Your task to perform on an android device: turn vacation reply on in the gmail app Image 0: 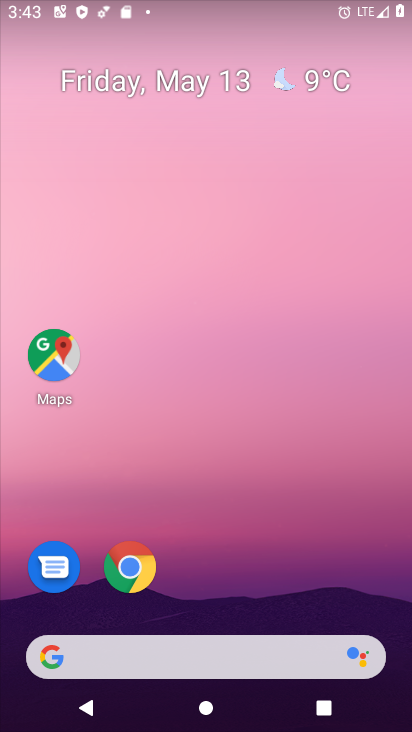
Step 0: drag from (323, 600) to (314, 7)
Your task to perform on an android device: turn vacation reply on in the gmail app Image 1: 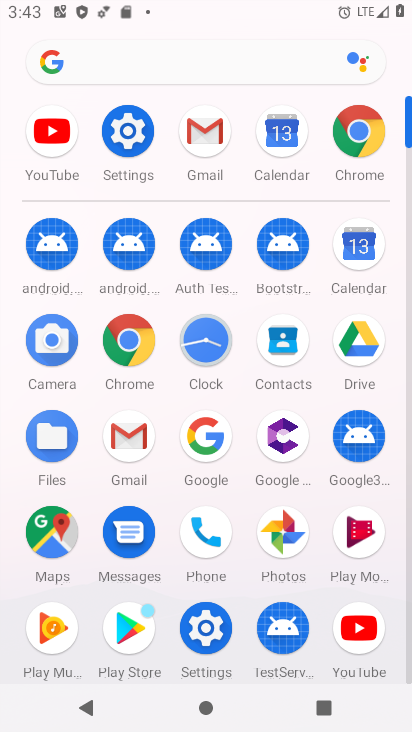
Step 1: click (201, 138)
Your task to perform on an android device: turn vacation reply on in the gmail app Image 2: 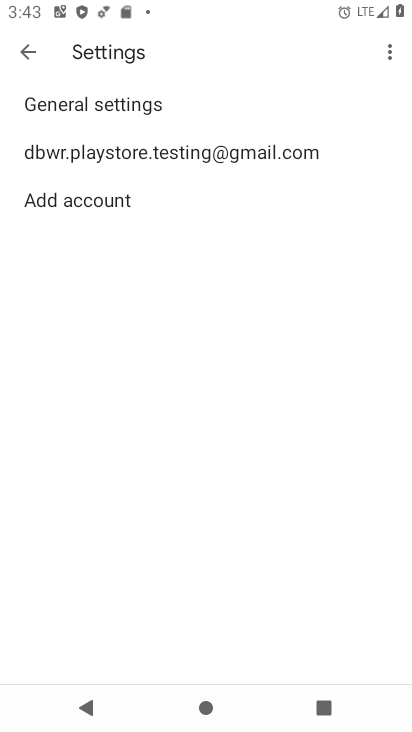
Step 2: click (53, 155)
Your task to perform on an android device: turn vacation reply on in the gmail app Image 3: 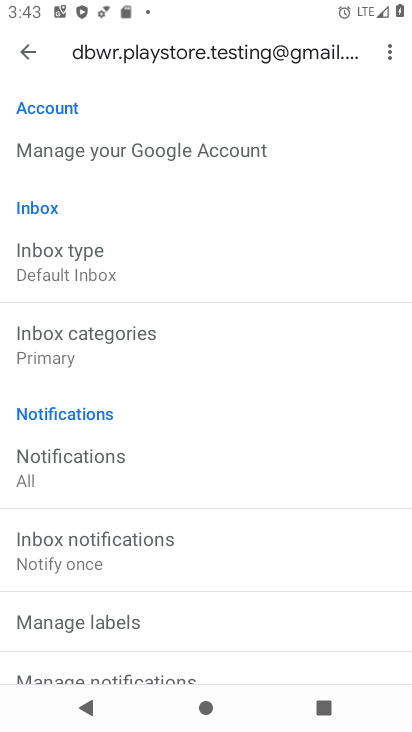
Step 3: drag from (236, 522) to (207, 134)
Your task to perform on an android device: turn vacation reply on in the gmail app Image 4: 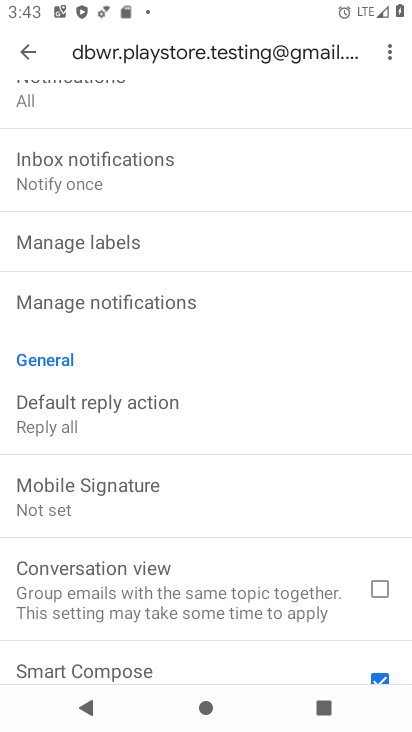
Step 4: drag from (217, 479) to (200, 58)
Your task to perform on an android device: turn vacation reply on in the gmail app Image 5: 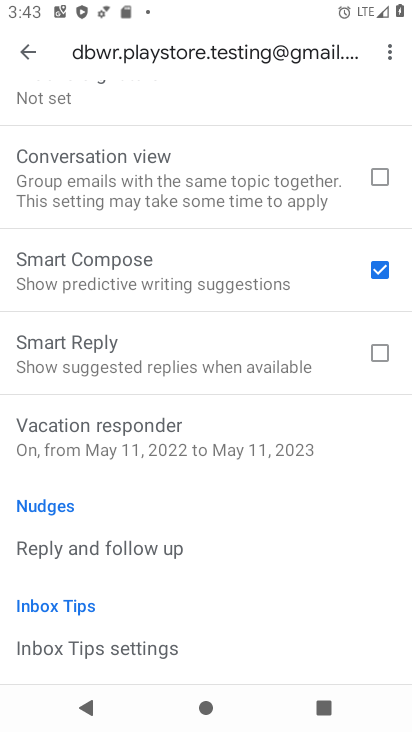
Step 5: click (140, 439)
Your task to perform on an android device: turn vacation reply on in the gmail app Image 6: 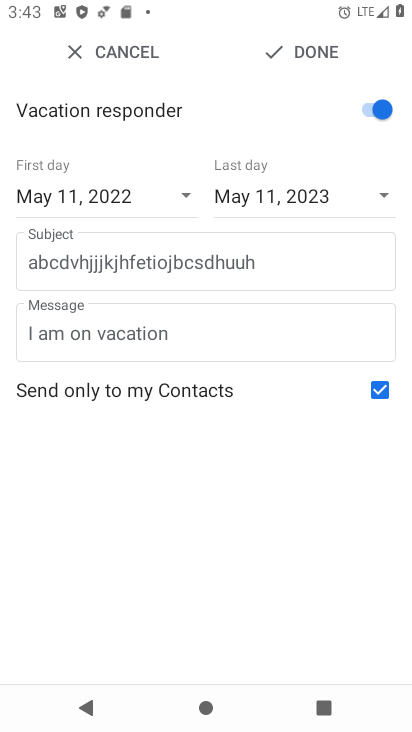
Step 6: click (324, 52)
Your task to perform on an android device: turn vacation reply on in the gmail app Image 7: 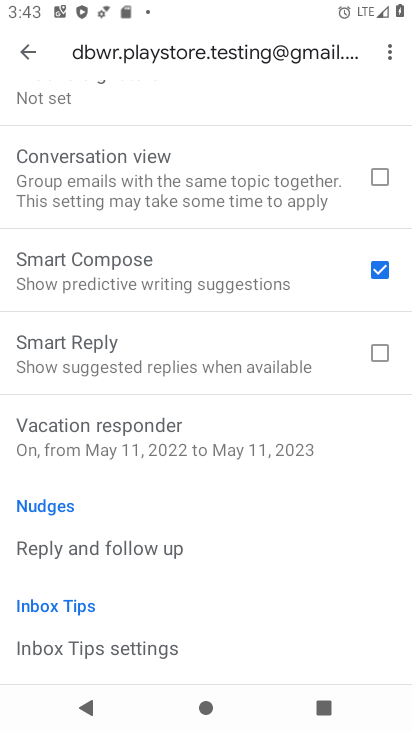
Step 7: task complete